Your task to perform on an android device: Set the phone to "Do not disturb". Image 0: 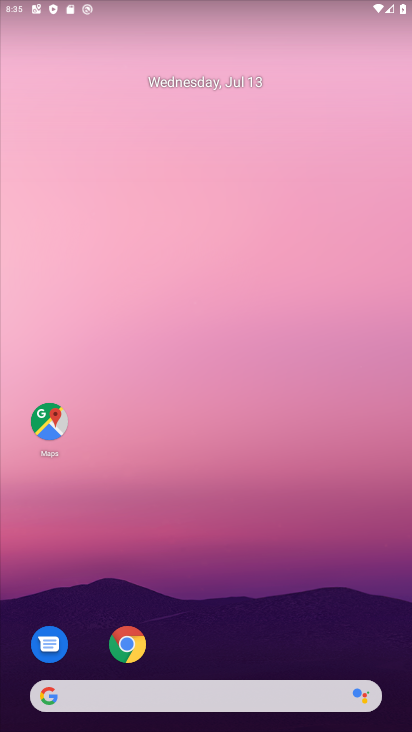
Step 0: press home button
Your task to perform on an android device: Set the phone to "Do not disturb". Image 1: 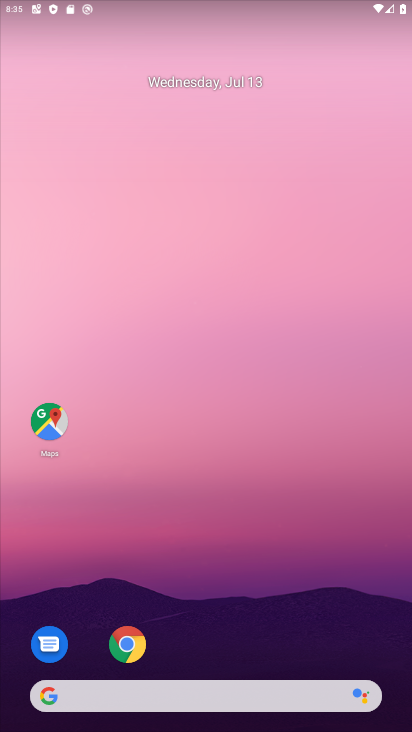
Step 1: drag from (247, 1) to (189, 372)
Your task to perform on an android device: Set the phone to "Do not disturb". Image 2: 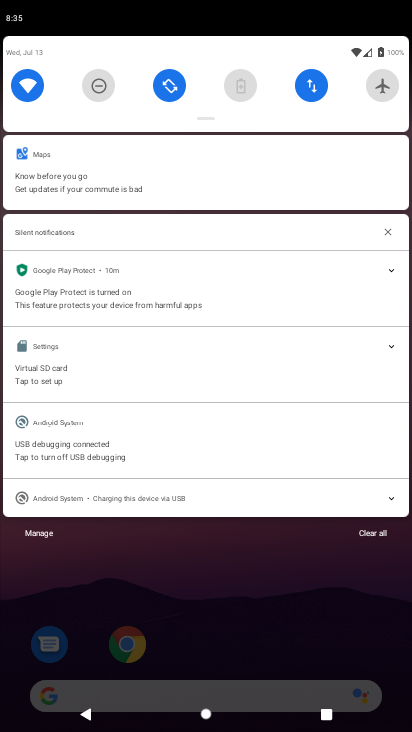
Step 2: drag from (198, 109) to (165, 289)
Your task to perform on an android device: Set the phone to "Do not disturb". Image 3: 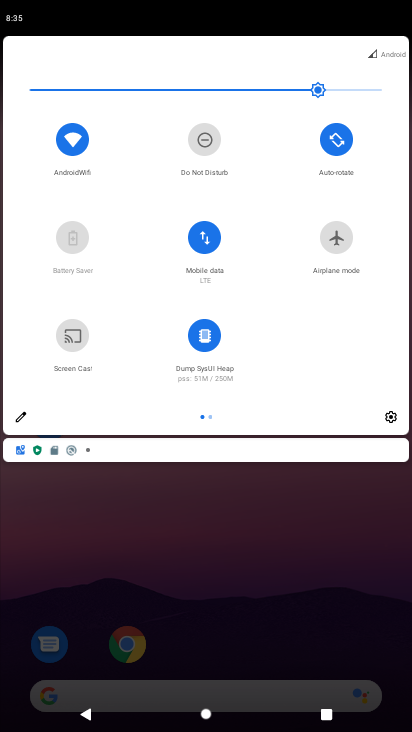
Step 3: click (204, 142)
Your task to perform on an android device: Set the phone to "Do not disturb". Image 4: 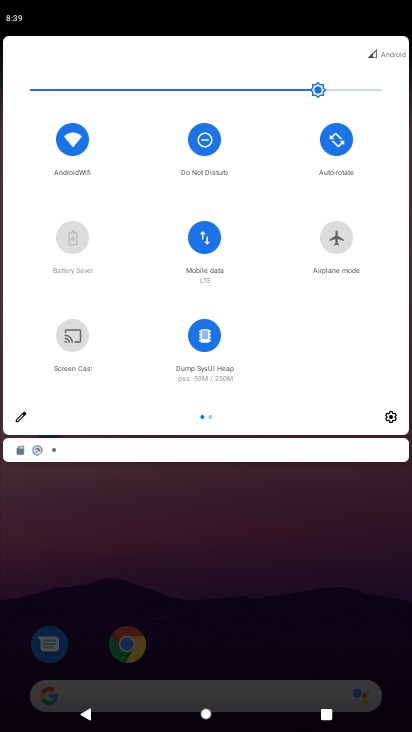
Step 4: task complete